Your task to perform on an android device: turn off data saver in the chrome app Image 0: 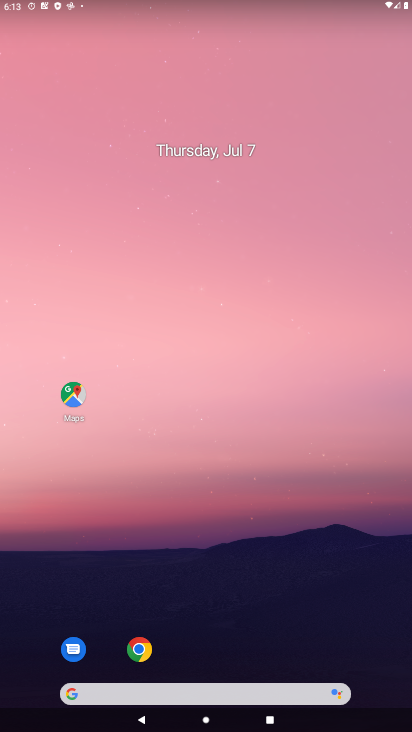
Step 0: drag from (353, 601) to (232, 30)
Your task to perform on an android device: turn off data saver in the chrome app Image 1: 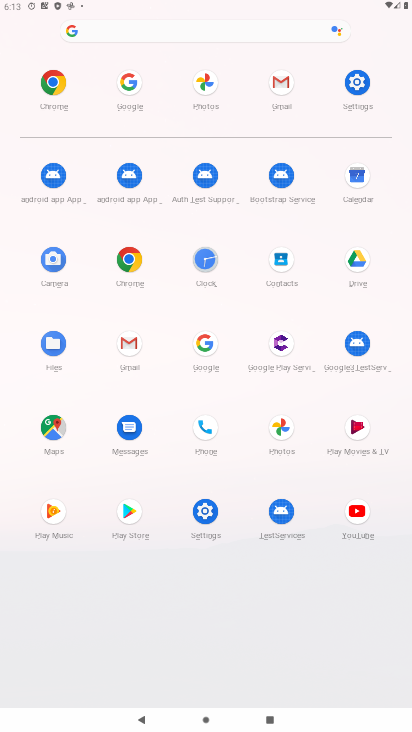
Step 1: click (121, 263)
Your task to perform on an android device: turn off data saver in the chrome app Image 2: 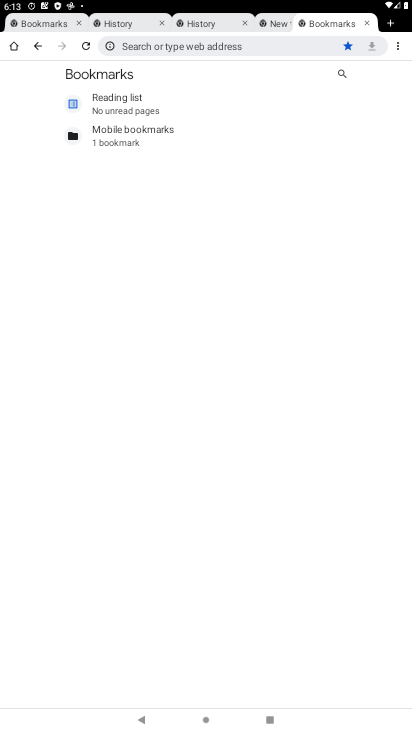
Step 2: click (405, 44)
Your task to perform on an android device: turn off data saver in the chrome app Image 3: 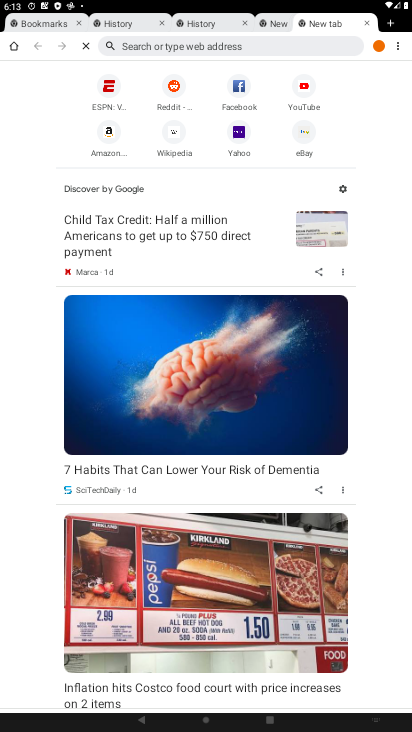
Step 3: click (397, 41)
Your task to perform on an android device: turn off data saver in the chrome app Image 4: 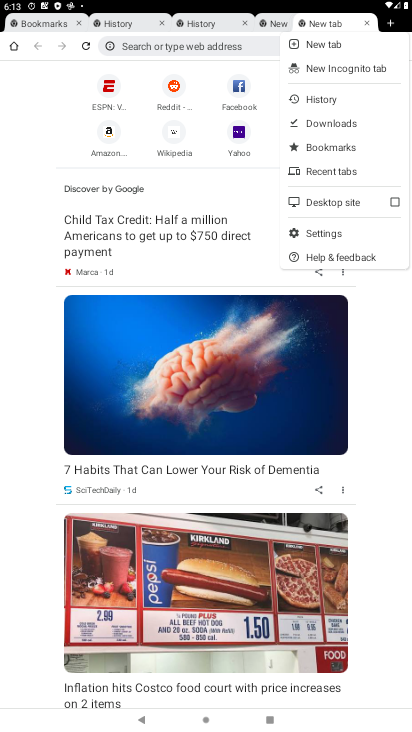
Step 4: click (301, 230)
Your task to perform on an android device: turn off data saver in the chrome app Image 5: 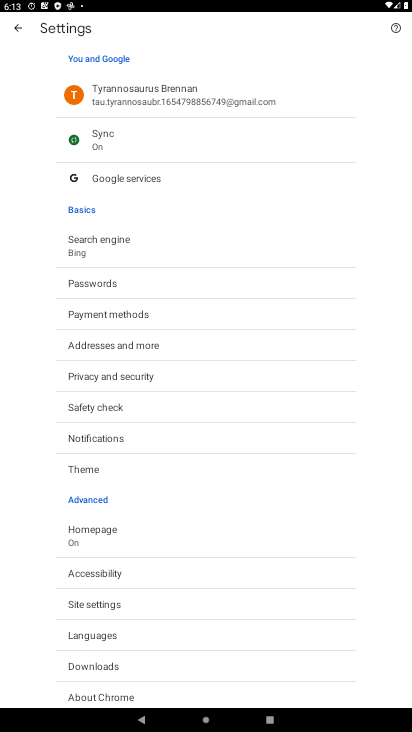
Step 5: task complete